Your task to perform on an android device: Open Reddit.com Image 0: 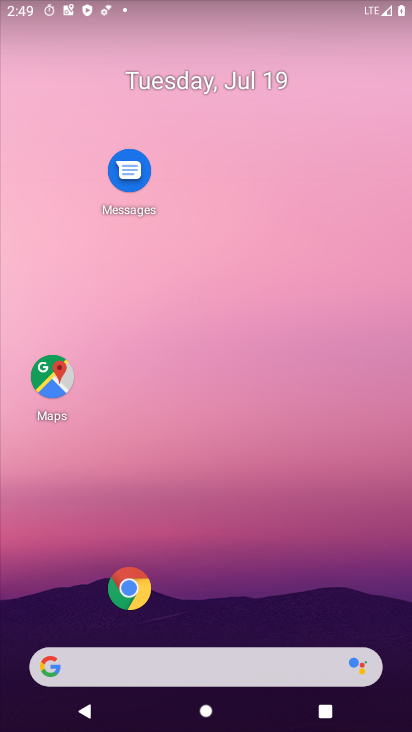
Step 0: click (67, 658)
Your task to perform on an android device: Open Reddit.com Image 1: 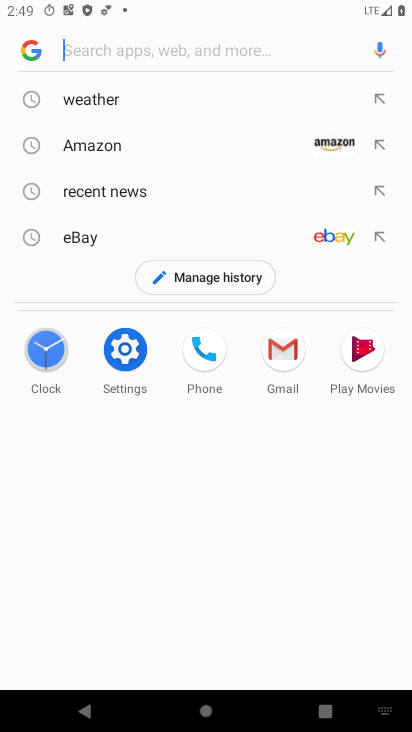
Step 1: type "Reddit.com"
Your task to perform on an android device: Open Reddit.com Image 2: 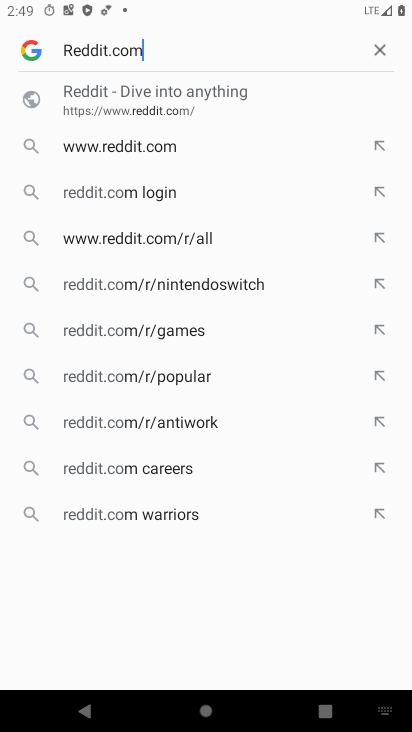
Step 2: type ""
Your task to perform on an android device: Open Reddit.com Image 3: 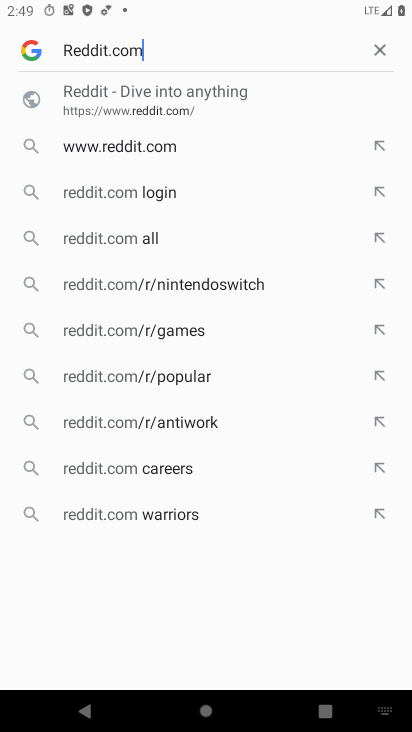
Step 3: type ""
Your task to perform on an android device: Open Reddit.com Image 4: 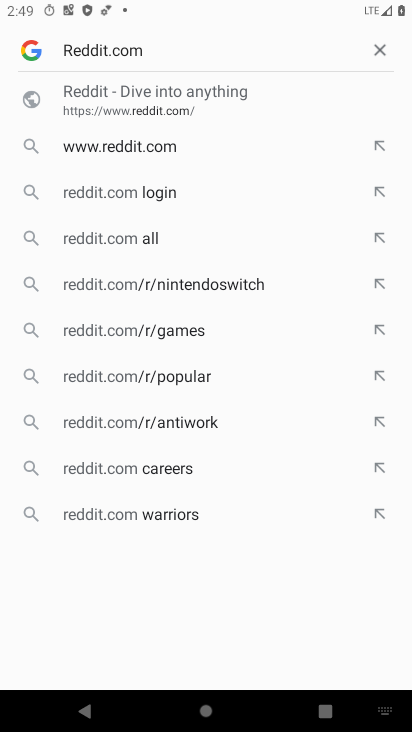
Step 4: type ""
Your task to perform on an android device: Open Reddit.com Image 5: 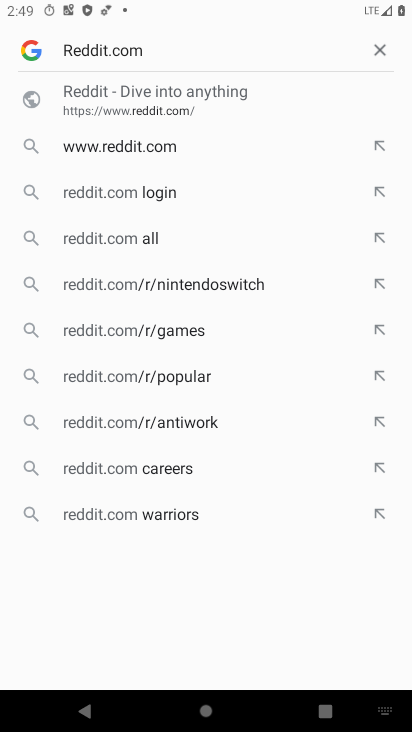
Step 5: type ""
Your task to perform on an android device: Open Reddit.com Image 6: 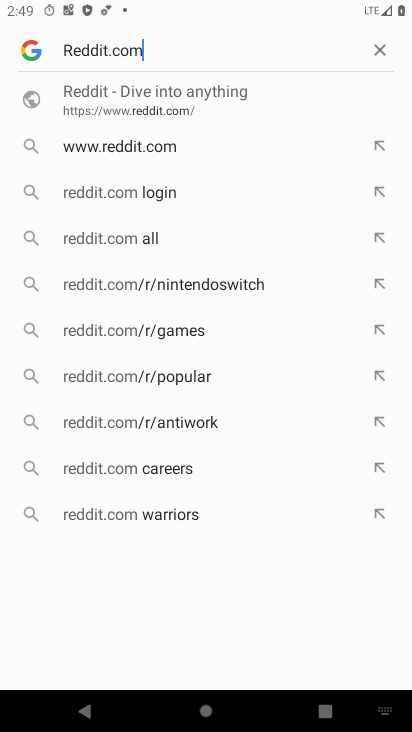
Step 6: type ""
Your task to perform on an android device: Open Reddit.com Image 7: 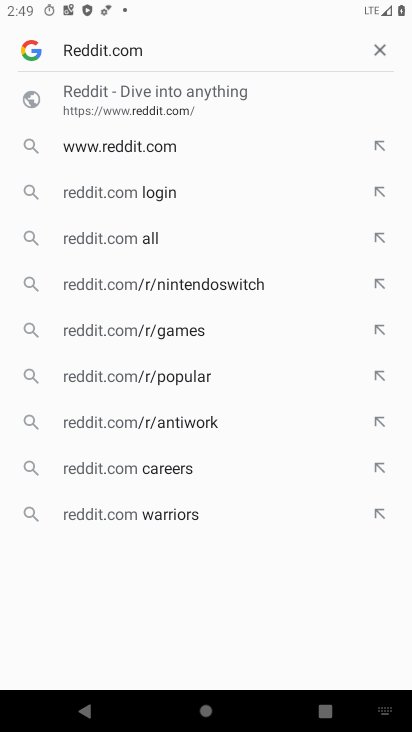
Step 7: type ""
Your task to perform on an android device: Open Reddit.com Image 8: 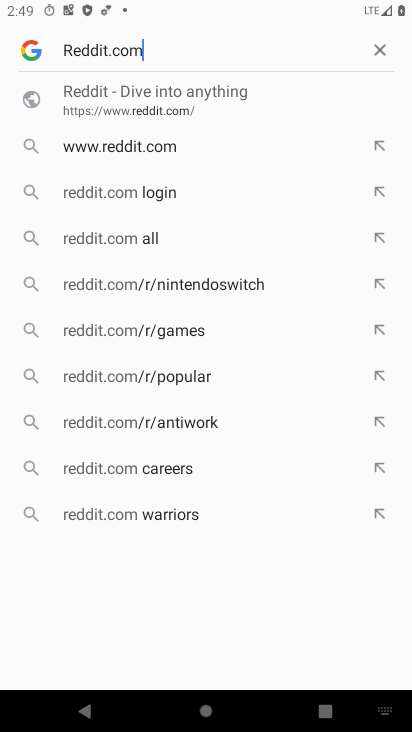
Step 8: type ""
Your task to perform on an android device: Open Reddit.com Image 9: 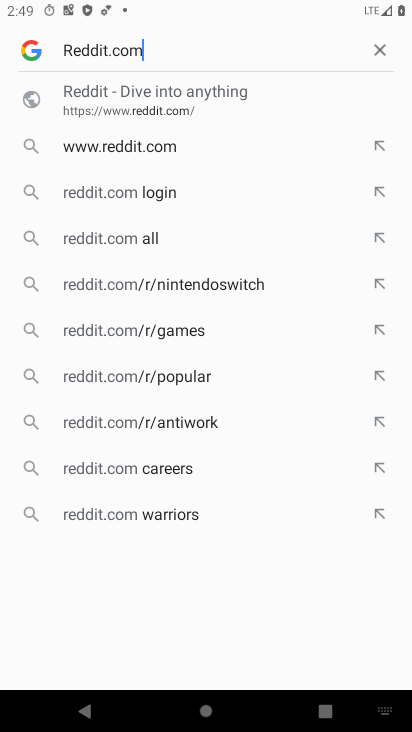
Step 9: type ""
Your task to perform on an android device: Open Reddit.com Image 10: 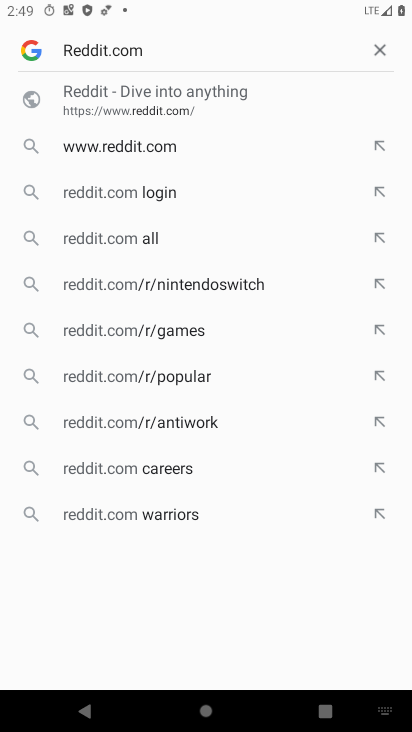
Step 10: type ""
Your task to perform on an android device: Open Reddit.com Image 11: 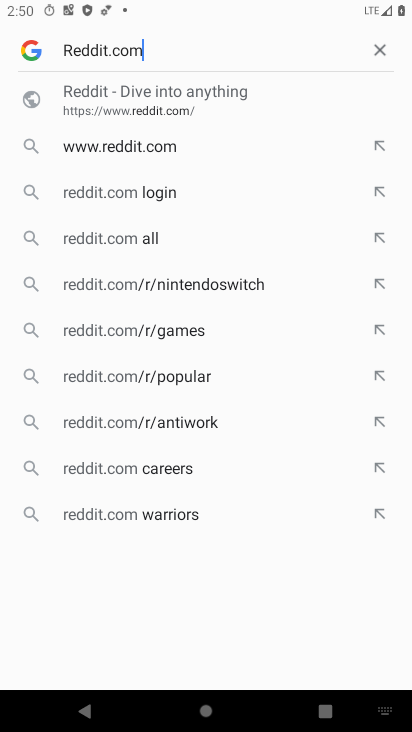
Step 11: task complete